Your task to perform on an android device: open chrome and create a bookmark for the current page Image 0: 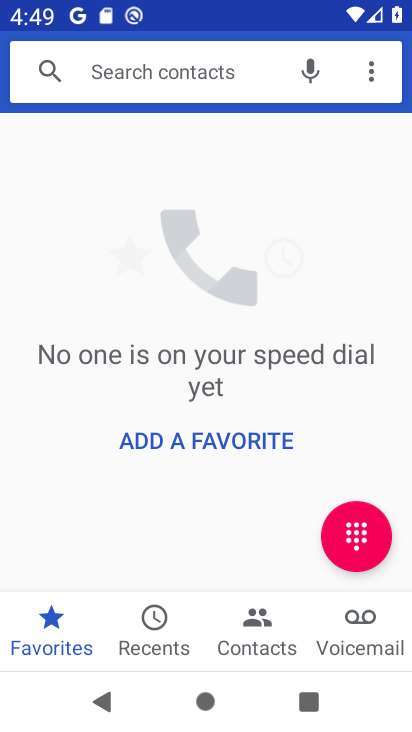
Step 0: press home button
Your task to perform on an android device: open chrome and create a bookmark for the current page Image 1: 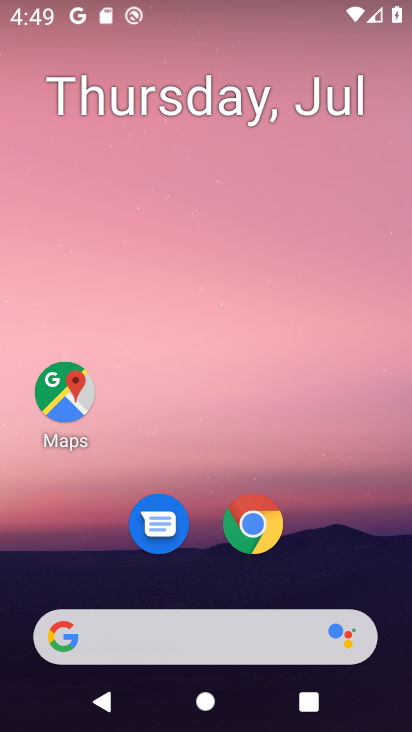
Step 1: click (257, 548)
Your task to perform on an android device: open chrome and create a bookmark for the current page Image 2: 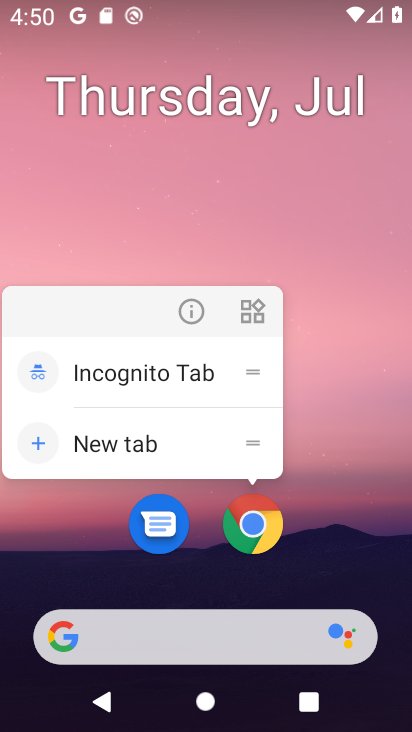
Step 2: click (253, 534)
Your task to perform on an android device: open chrome and create a bookmark for the current page Image 3: 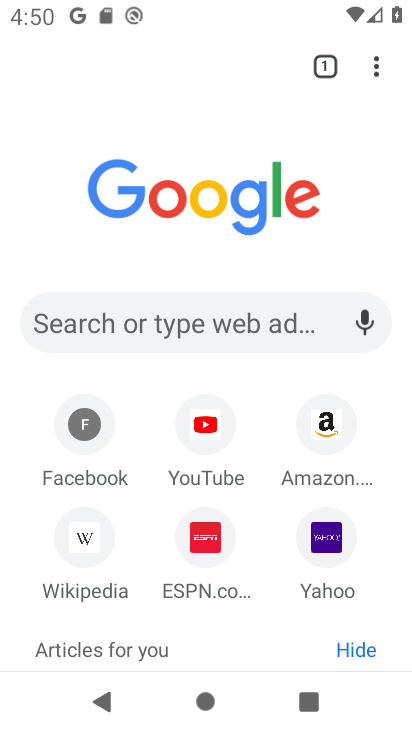
Step 3: task complete